Your task to perform on an android device: change the clock display to show seconds Image 0: 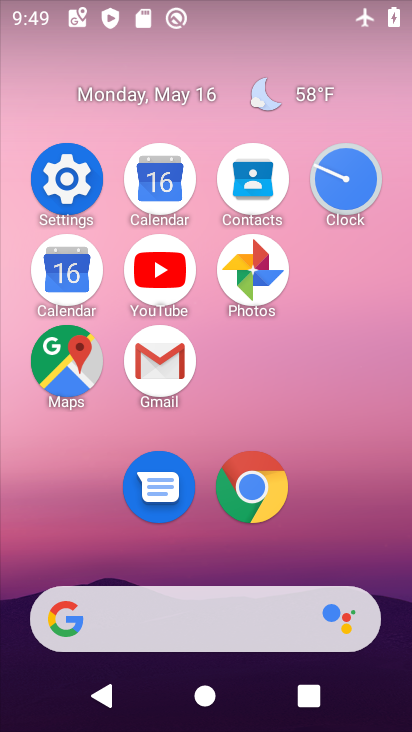
Step 0: click (335, 189)
Your task to perform on an android device: change the clock display to show seconds Image 1: 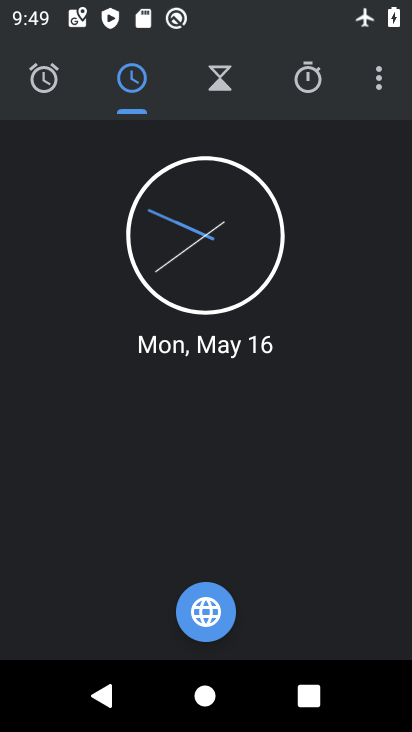
Step 1: click (375, 77)
Your task to perform on an android device: change the clock display to show seconds Image 2: 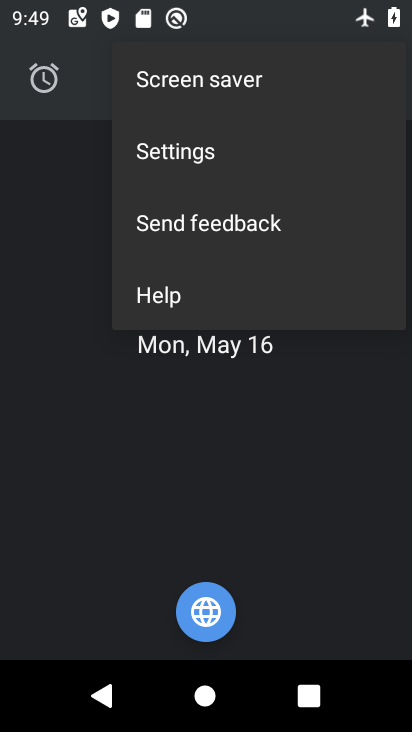
Step 2: click (223, 153)
Your task to perform on an android device: change the clock display to show seconds Image 3: 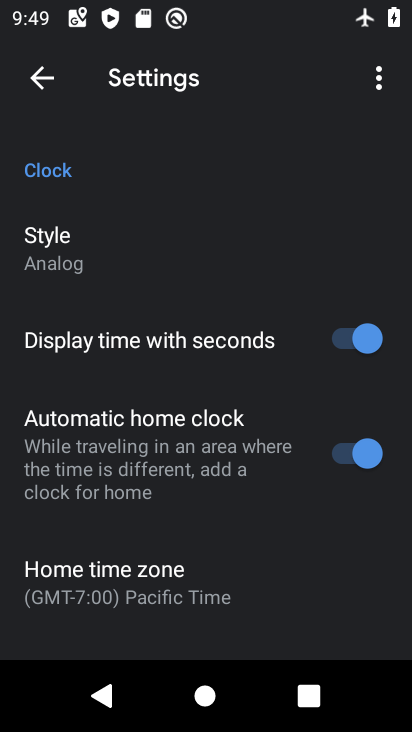
Step 3: click (365, 344)
Your task to perform on an android device: change the clock display to show seconds Image 4: 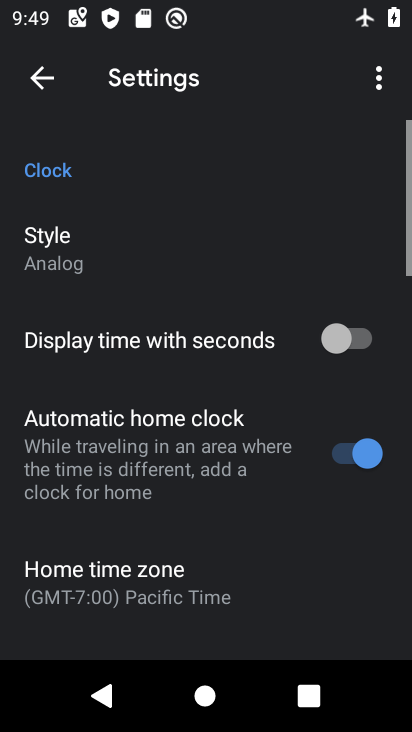
Step 4: task complete